Your task to perform on an android device: What's on my calendar tomorrow? Image 0: 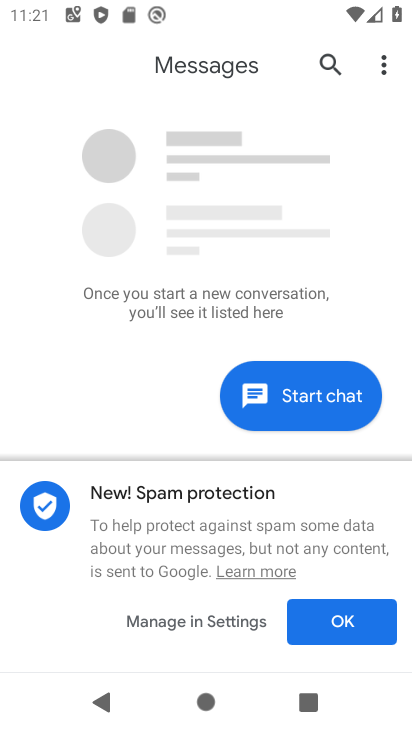
Step 0: press home button
Your task to perform on an android device: What's on my calendar tomorrow? Image 1: 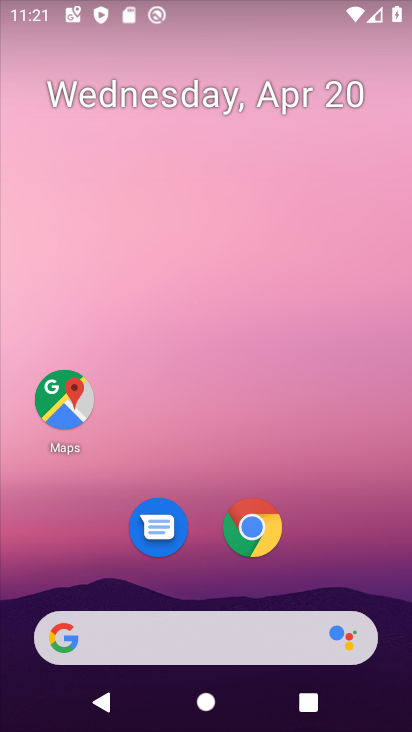
Step 1: drag from (349, 526) to (364, 33)
Your task to perform on an android device: What's on my calendar tomorrow? Image 2: 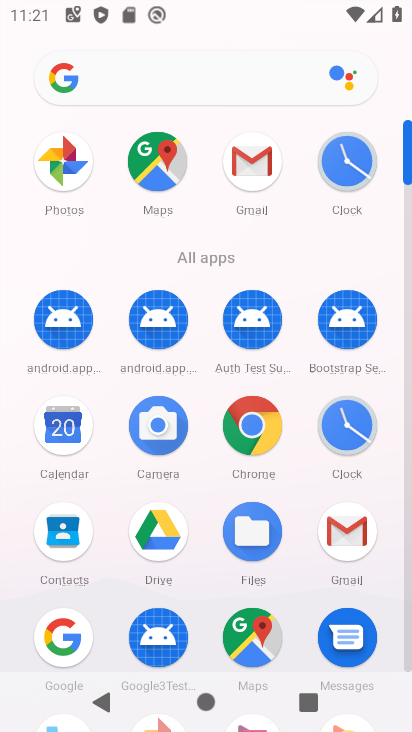
Step 2: click (57, 420)
Your task to perform on an android device: What's on my calendar tomorrow? Image 3: 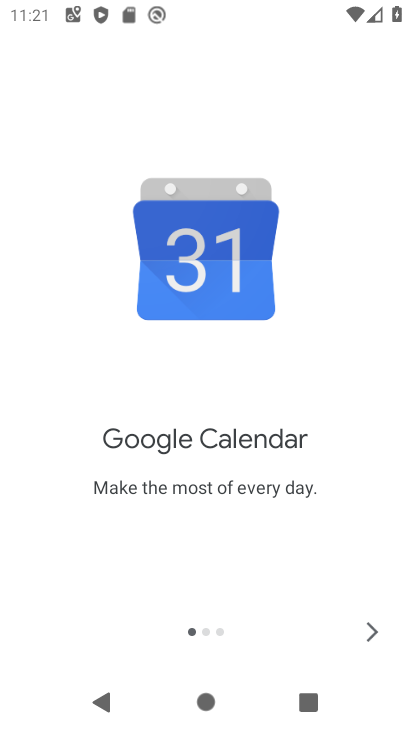
Step 3: click (373, 627)
Your task to perform on an android device: What's on my calendar tomorrow? Image 4: 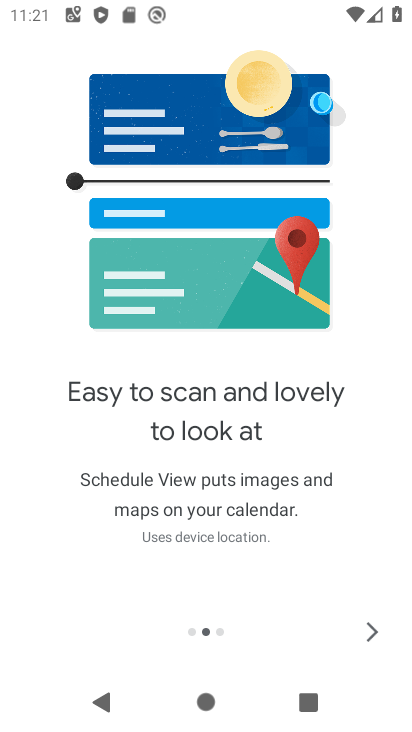
Step 4: click (373, 627)
Your task to perform on an android device: What's on my calendar tomorrow? Image 5: 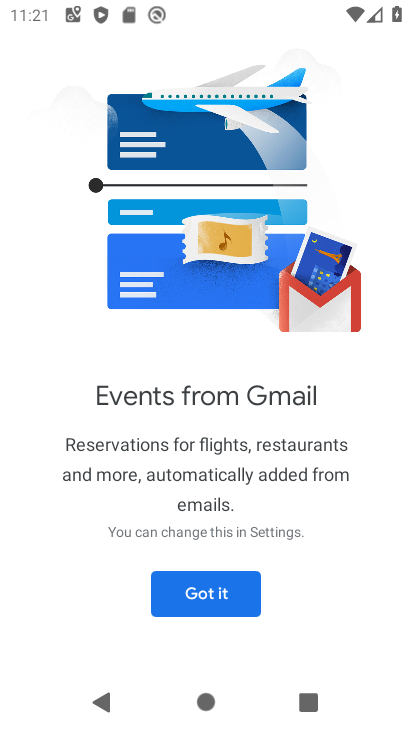
Step 5: click (213, 595)
Your task to perform on an android device: What's on my calendar tomorrow? Image 6: 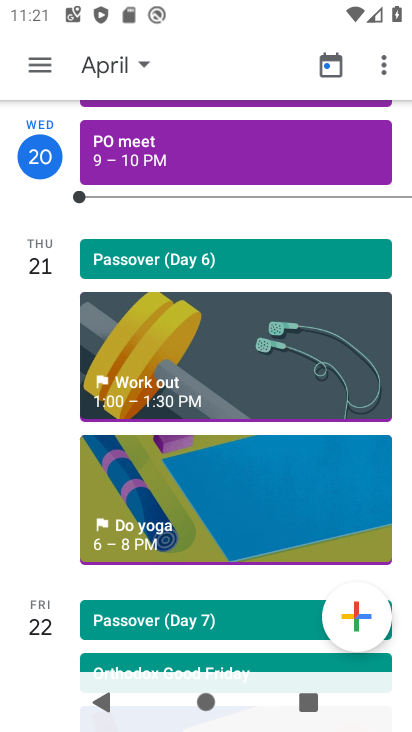
Step 6: task complete